Your task to perform on an android device: change the clock display to analog Image 0: 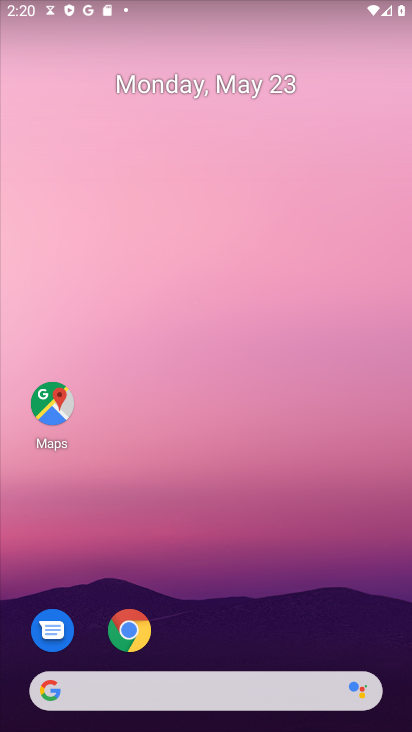
Step 0: drag from (341, 540) to (324, 118)
Your task to perform on an android device: change the clock display to analog Image 1: 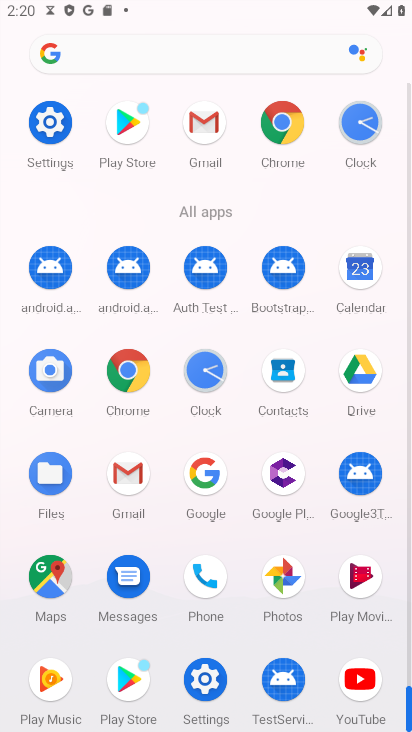
Step 1: click (363, 133)
Your task to perform on an android device: change the clock display to analog Image 2: 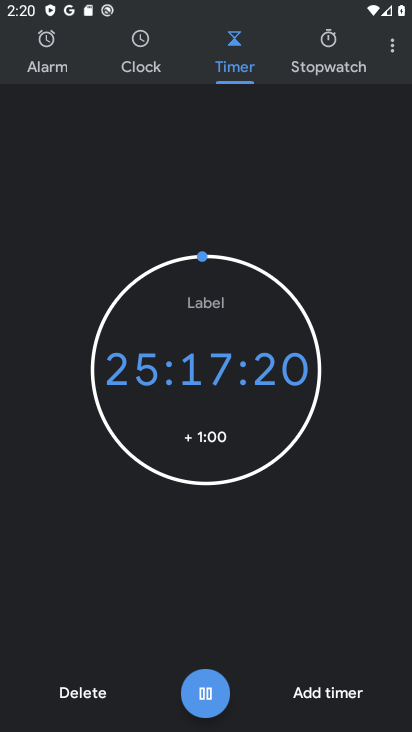
Step 2: click (388, 54)
Your task to perform on an android device: change the clock display to analog Image 3: 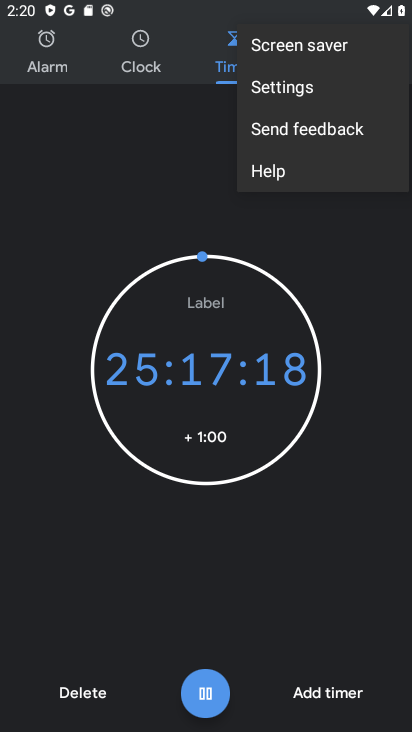
Step 3: click (300, 95)
Your task to perform on an android device: change the clock display to analog Image 4: 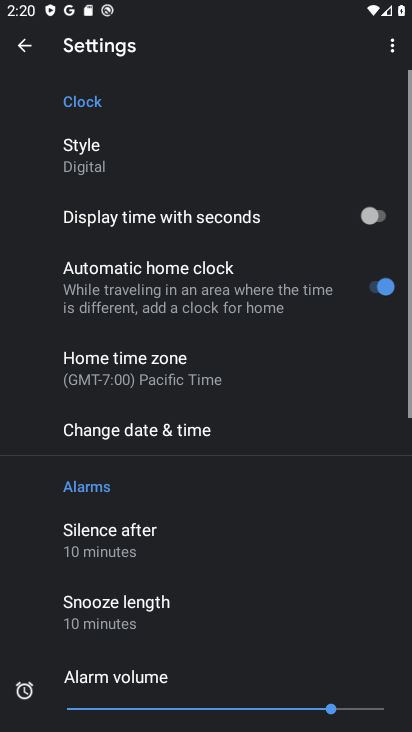
Step 4: click (99, 168)
Your task to perform on an android device: change the clock display to analog Image 5: 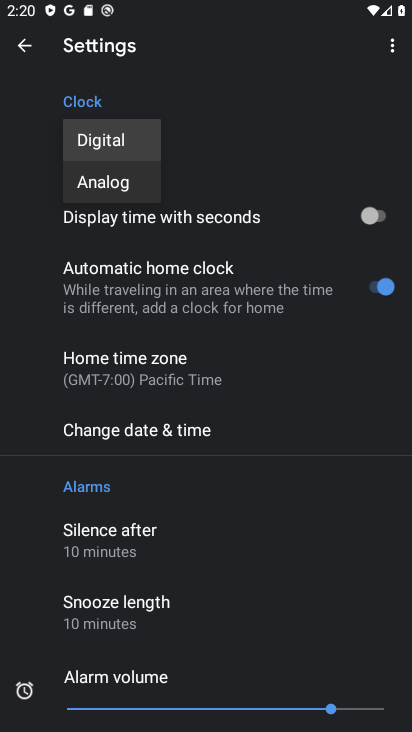
Step 5: click (99, 191)
Your task to perform on an android device: change the clock display to analog Image 6: 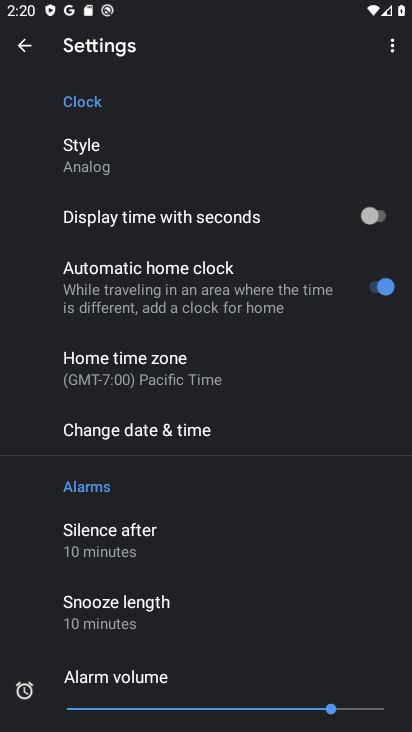
Step 6: task complete